Your task to perform on an android device: add a contact in the contacts app Image 0: 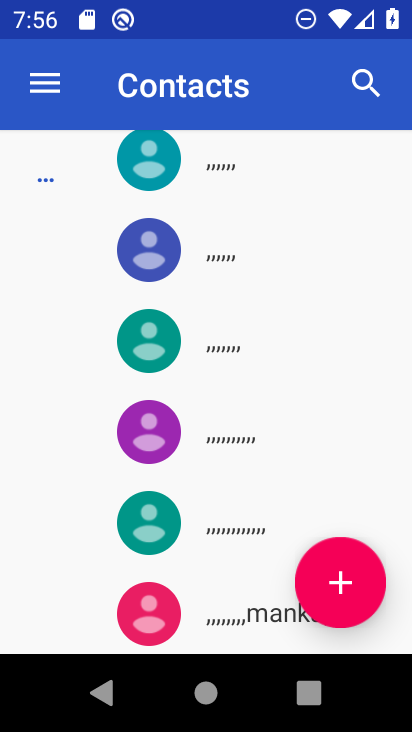
Step 0: press home button
Your task to perform on an android device: add a contact in the contacts app Image 1: 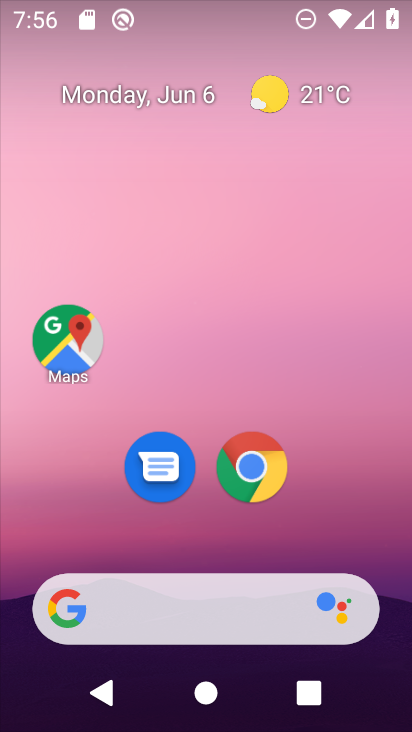
Step 1: drag from (375, 544) to (359, 102)
Your task to perform on an android device: add a contact in the contacts app Image 2: 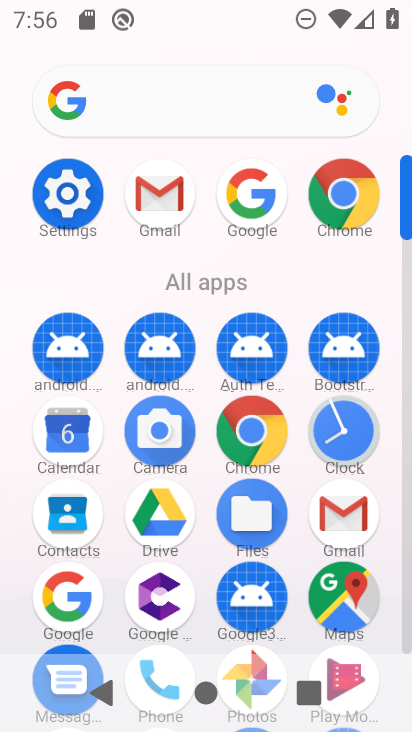
Step 2: click (78, 520)
Your task to perform on an android device: add a contact in the contacts app Image 3: 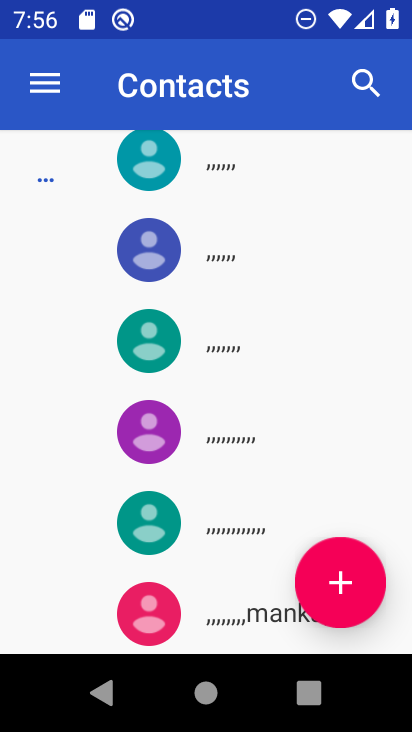
Step 3: click (342, 574)
Your task to perform on an android device: add a contact in the contacts app Image 4: 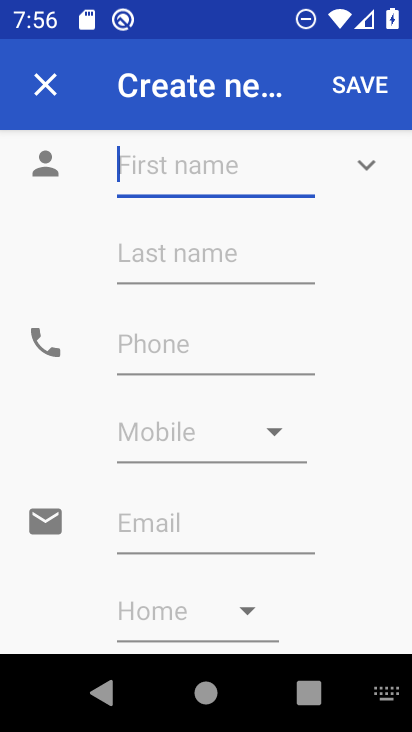
Step 4: click (198, 171)
Your task to perform on an android device: add a contact in the contacts app Image 5: 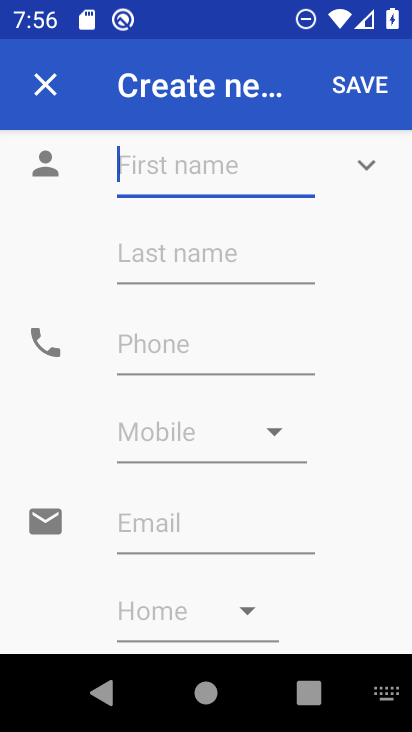
Step 5: type "fav"
Your task to perform on an android device: add a contact in the contacts app Image 6: 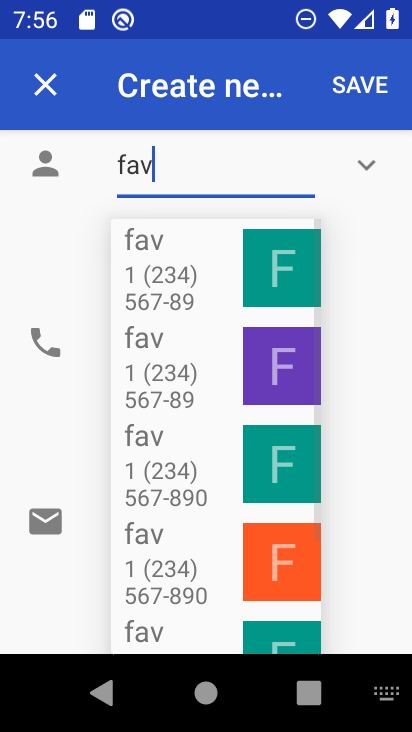
Step 6: click (371, 281)
Your task to perform on an android device: add a contact in the contacts app Image 7: 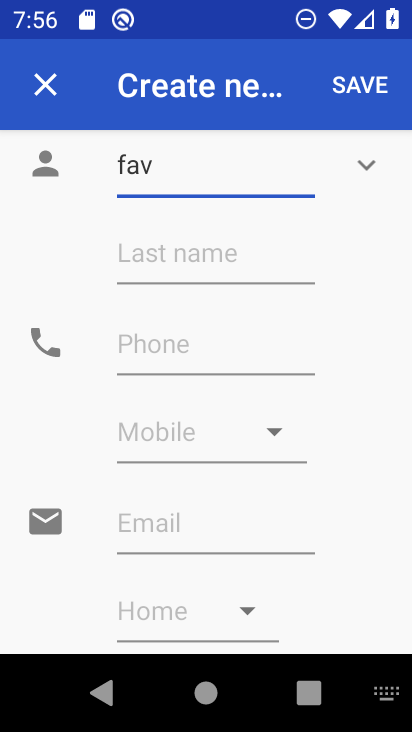
Step 7: click (167, 362)
Your task to perform on an android device: add a contact in the contacts app Image 8: 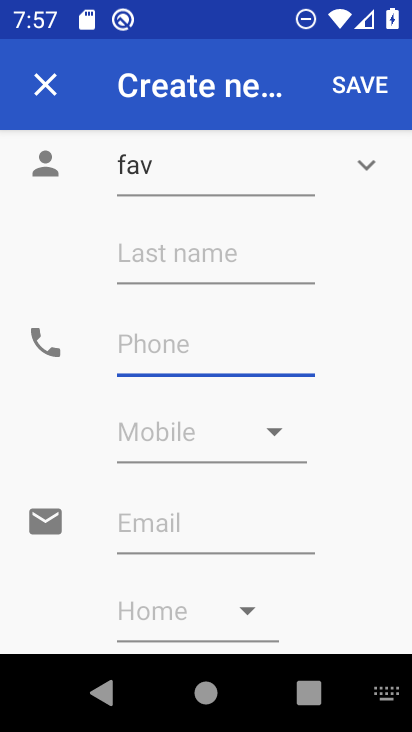
Step 8: type "123456789"
Your task to perform on an android device: add a contact in the contacts app Image 9: 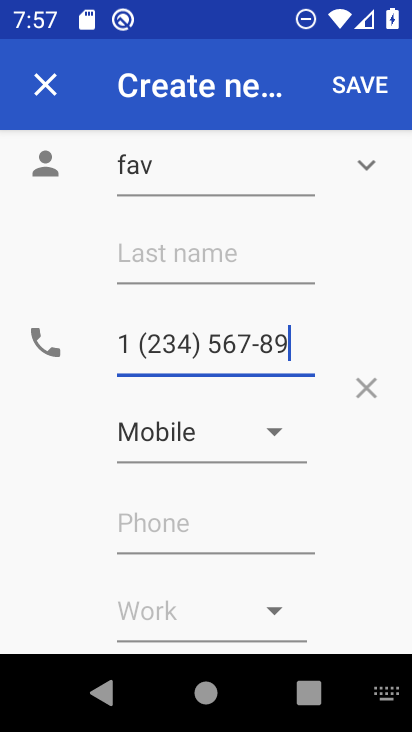
Step 9: click (364, 85)
Your task to perform on an android device: add a contact in the contacts app Image 10: 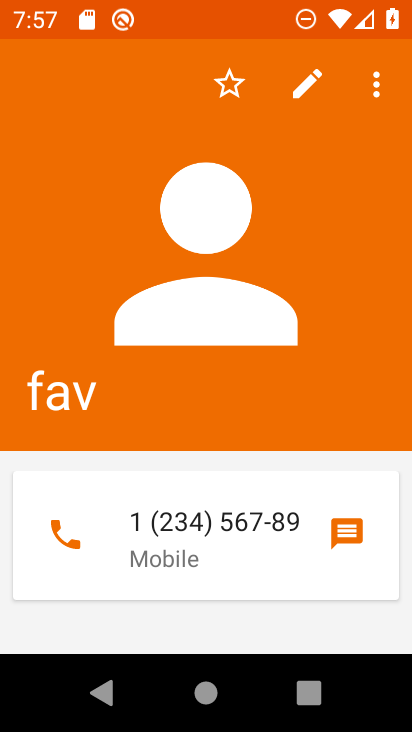
Step 10: task complete